Your task to perform on an android device: Search for Italian restaurants on Maps Image 0: 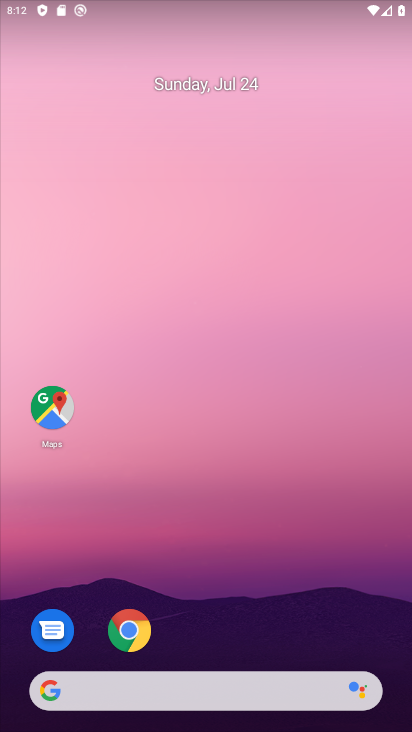
Step 0: drag from (174, 652) to (183, 418)
Your task to perform on an android device: Search for Italian restaurants on Maps Image 1: 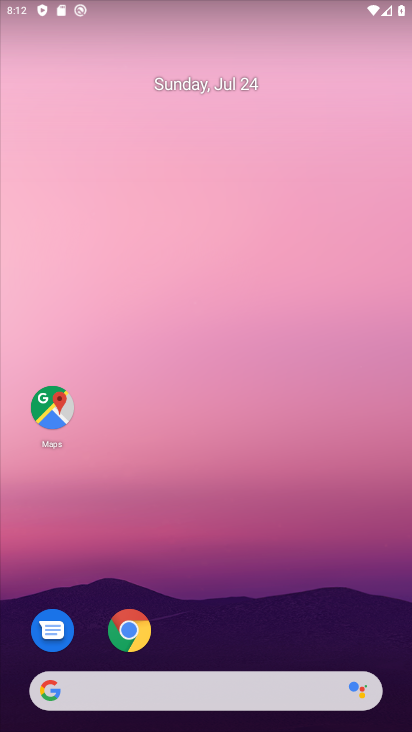
Step 1: drag from (216, 590) to (293, 187)
Your task to perform on an android device: Search for Italian restaurants on Maps Image 2: 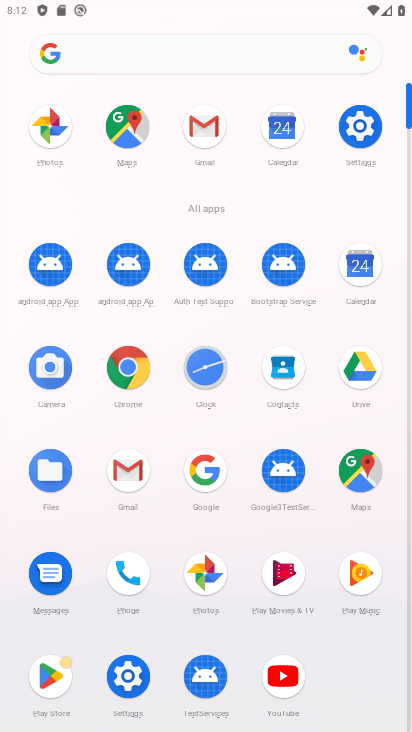
Step 2: click (126, 127)
Your task to perform on an android device: Search for Italian restaurants on Maps Image 3: 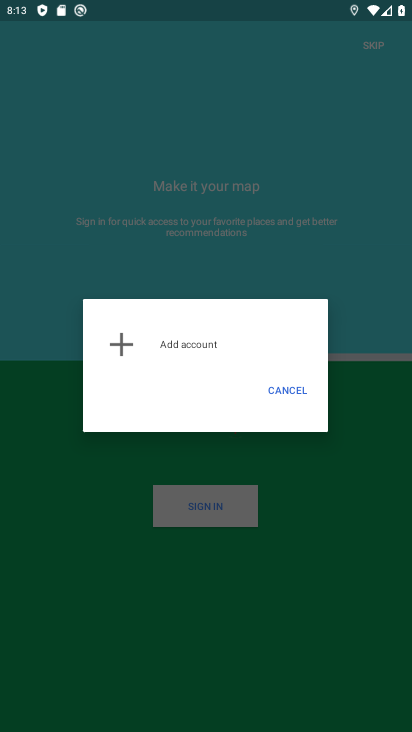
Step 3: task complete